Your task to perform on an android device: turn off notifications settings in the gmail app Image 0: 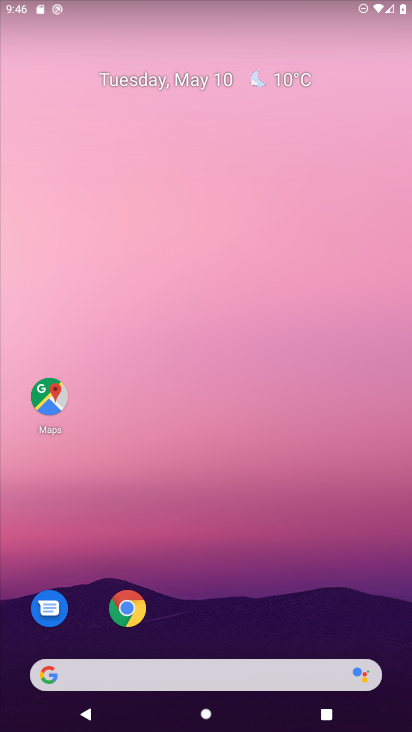
Step 0: drag from (364, 620) to (340, 70)
Your task to perform on an android device: turn off notifications settings in the gmail app Image 1: 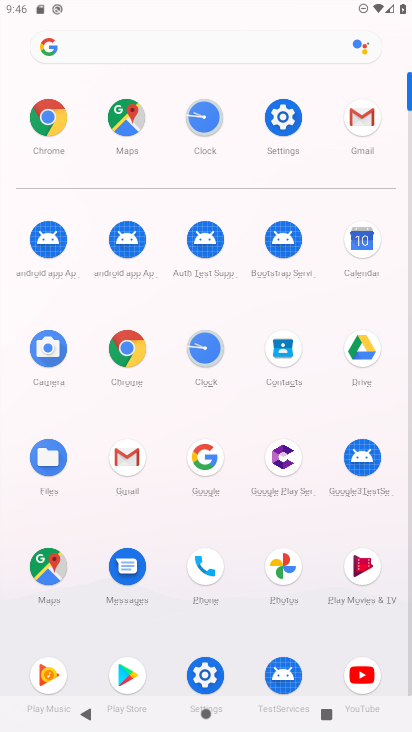
Step 1: click (132, 475)
Your task to perform on an android device: turn off notifications settings in the gmail app Image 2: 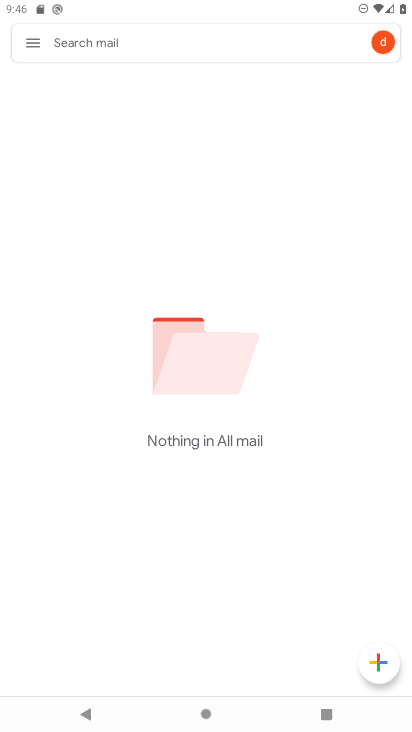
Step 2: click (15, 41)
Your task to perform on an android device: turn off notifications settings in the gmail app Image 3: 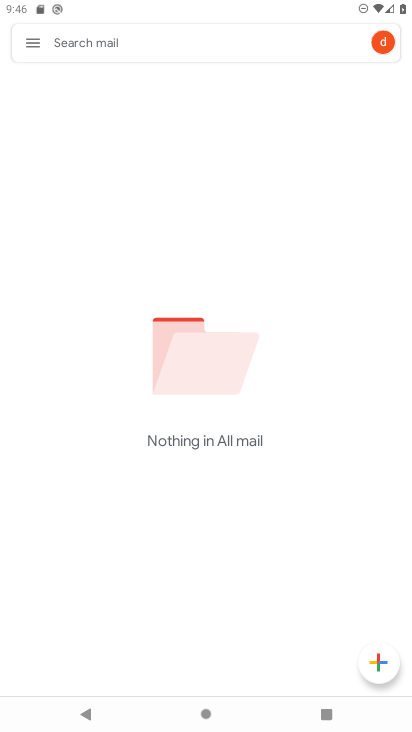
Step 3: click (31, 44)
Your task to perform on an android device: turn off notifications settings in the gmail app Image 4: 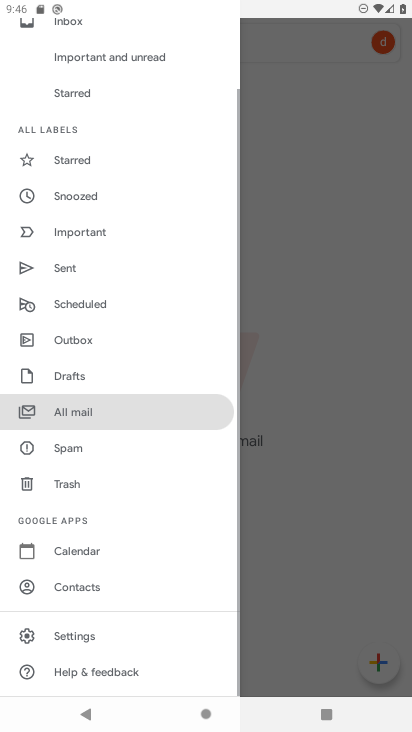
Step 4: click (111, 620)
Your task to perform on an android device: turn off notifications settings in the gmail app Image 5: 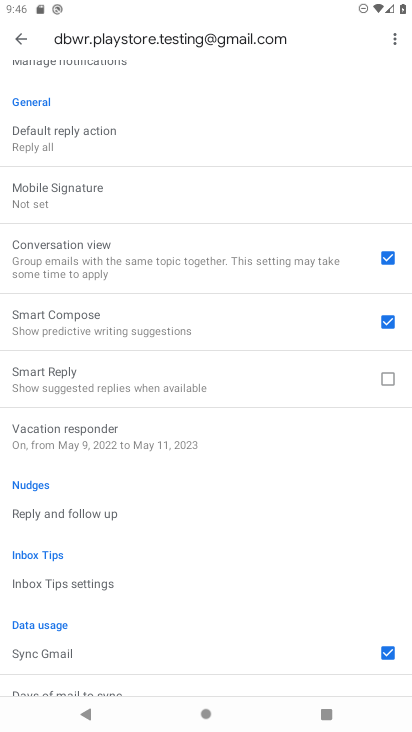
Step 5: drag from (157, 197) to (174, 727)
Your task to perform on an android device: turn off notifications settings in the gmail app Image 6: 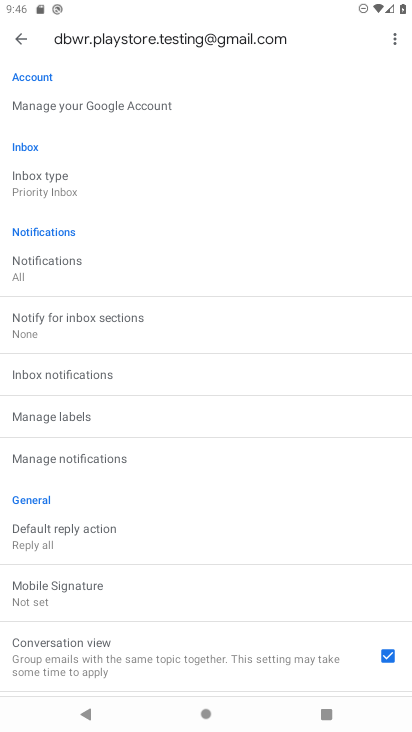
Step 6: click (112, 277)
Your task to perform on an android device: turn off notifications settings in the gmail app Image 7: 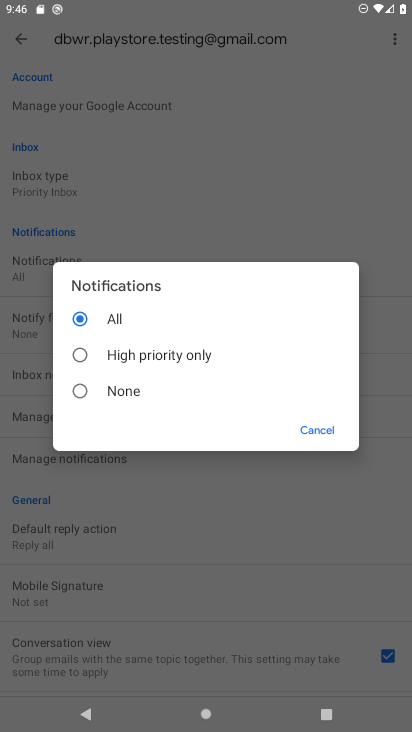
Step 7: click (109, 394)
Your task to perform on an android device: turn off notifications settings in the gmail app Image 8: 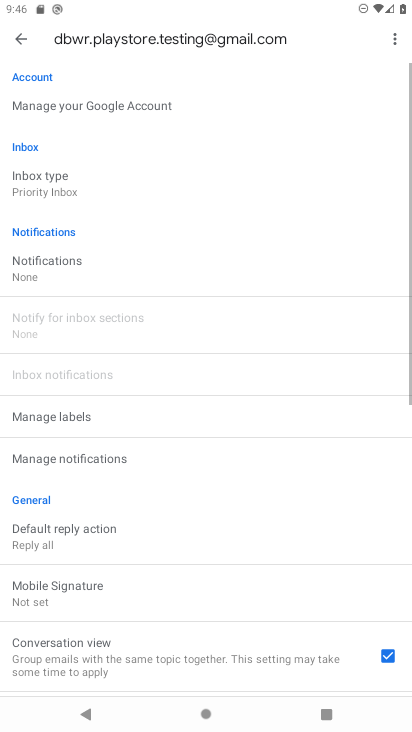
Step 8: task complete